Your task to perform on an android device: Show me productivity apps on the Play Store Image 0: 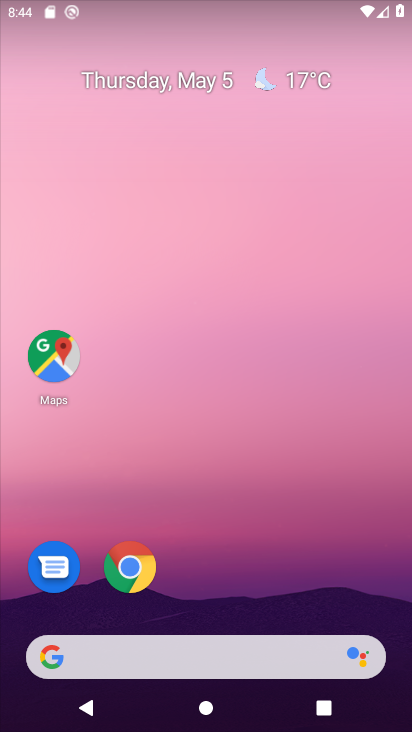
Step 0: drag from (257, 543) to (241, 43)
Your task to perform on an android device: Show me productivity apps on the Play Store Image 1: 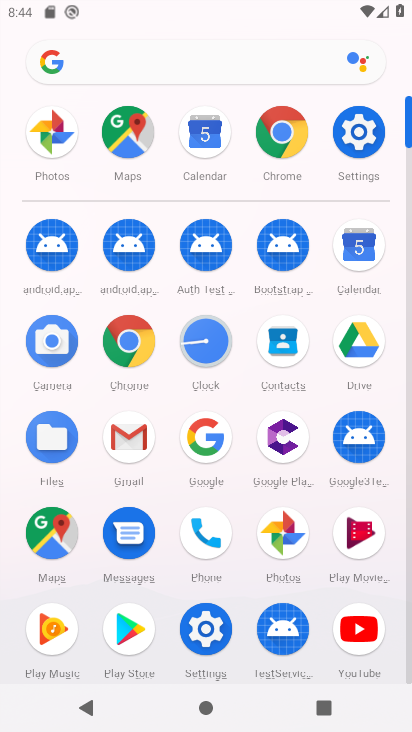
Step 1: click (127, 628)
Your task to perform on an android device: Show me productivity apps on the Play Store Image 2: 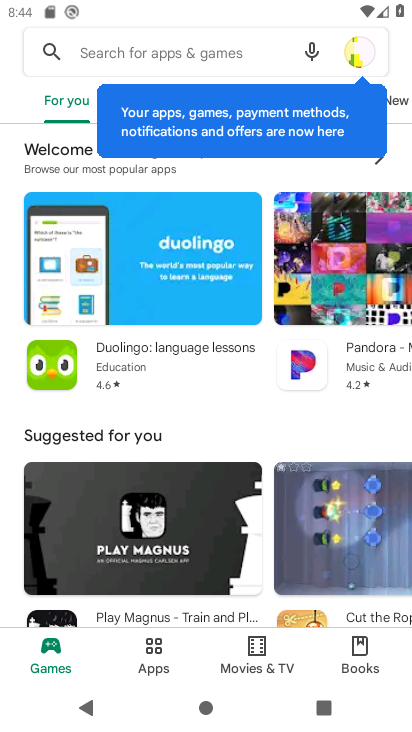
Step 2: click (154, 647)
Your task to perform on an android device: Show me productivity apps on the Play Store Image 3: 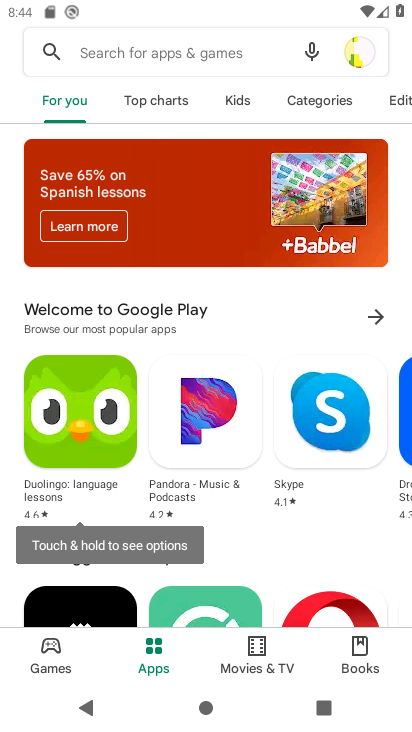
Step 3: click (317, 95)
Your task to perform on an android device: Show me productivity apps on the Play Store Image 4: 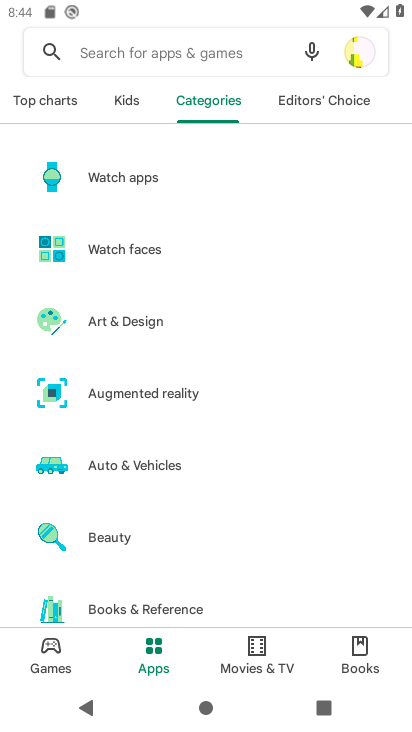
Step 4: drag from (160, 535) to (149, 122)
Your task to perform on an android device: Show me productivity apps on the Play Store Image 5: 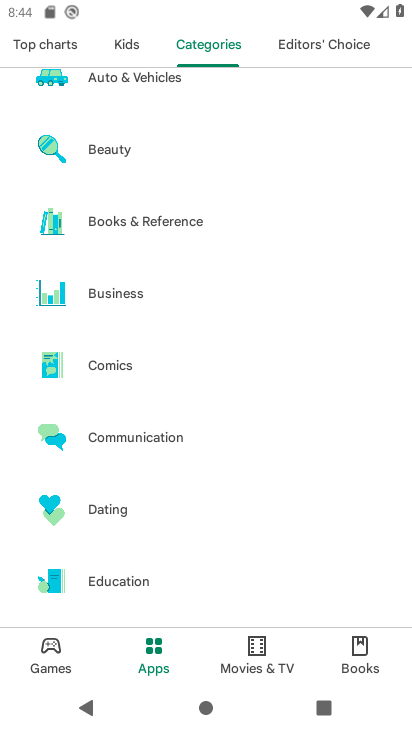
Step 5: drag from (149, 539) to (136, 114)
Your task to perform on an android device: Show me productivity apps on the Play Store Image 6: 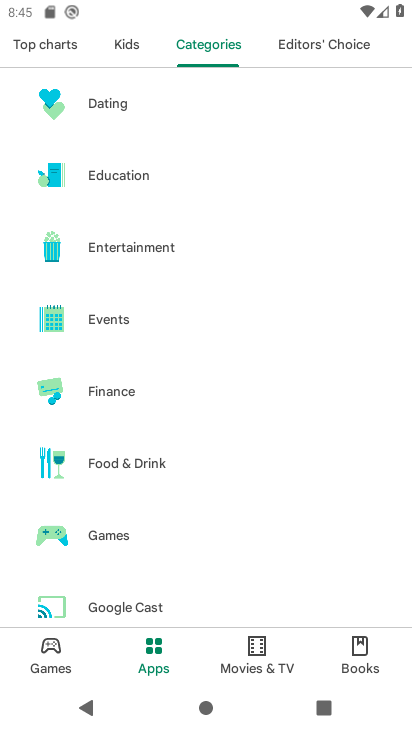
Step 6: drag from (152, 557) to (147, 131)
Your task to perform on an android device: Show me productivity apps on the Play Store Image 7: 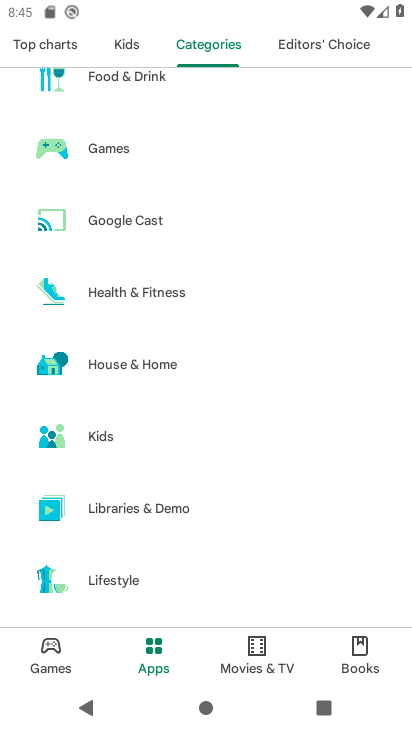
Step 7: drag from (155, 597) to (153, 116)
Your task to perform on an android device: Show me productivity apps on the Play Store Image 8: 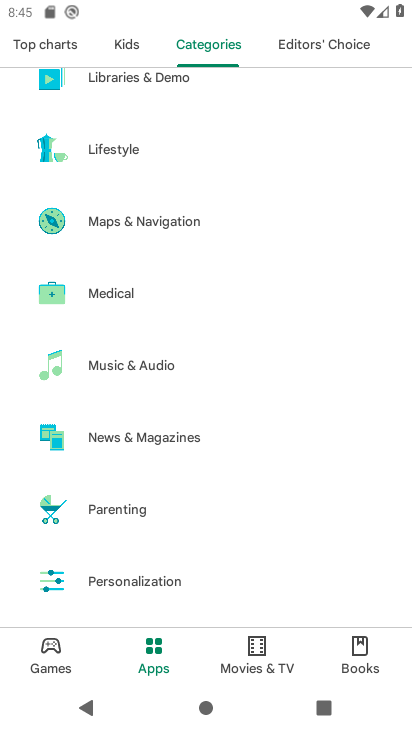
Step 8: drag from (140, 535) to (156, 100)
Your task to perform on an android device: Show me productivity apps on the Play Store Image 9: 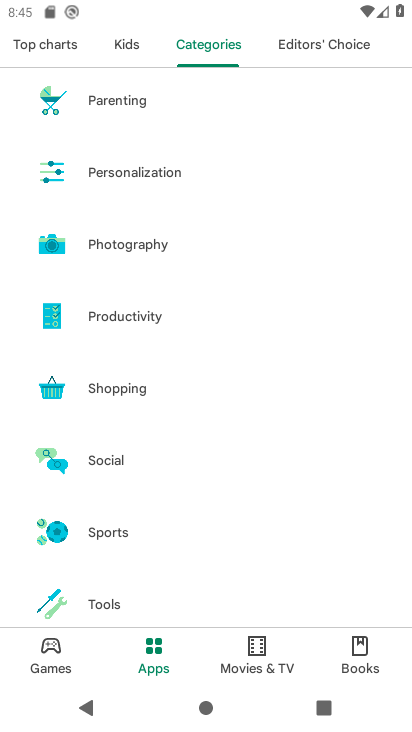
Step 9: click (132, 314)
Your task to perform on an android device: Show me productivity apps on the Play Store Image 10: 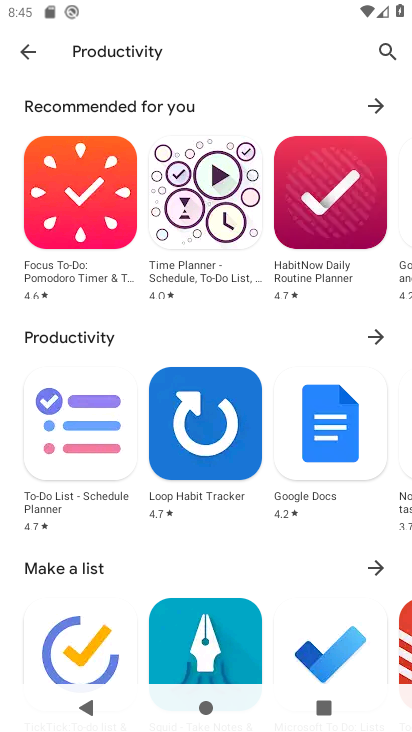
Step 10: task complete